Your task to perform on an android device: Open calendar and show me the second week of next month Image 0: 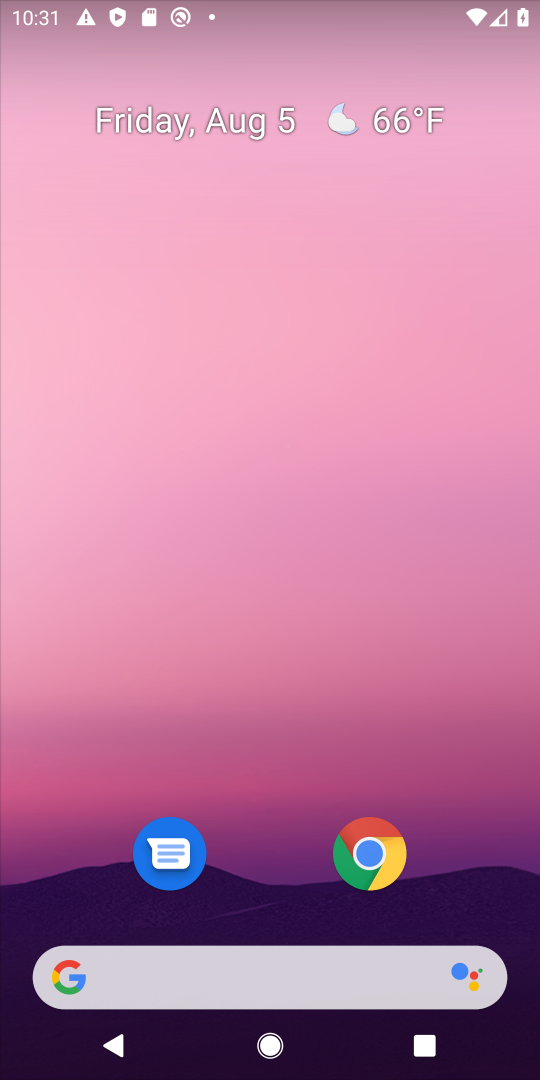
Step 0: drag from (249, 901) to (163, 202)
Your task to perform on an android device: Open calendar and show me the second week of next month Image 1: 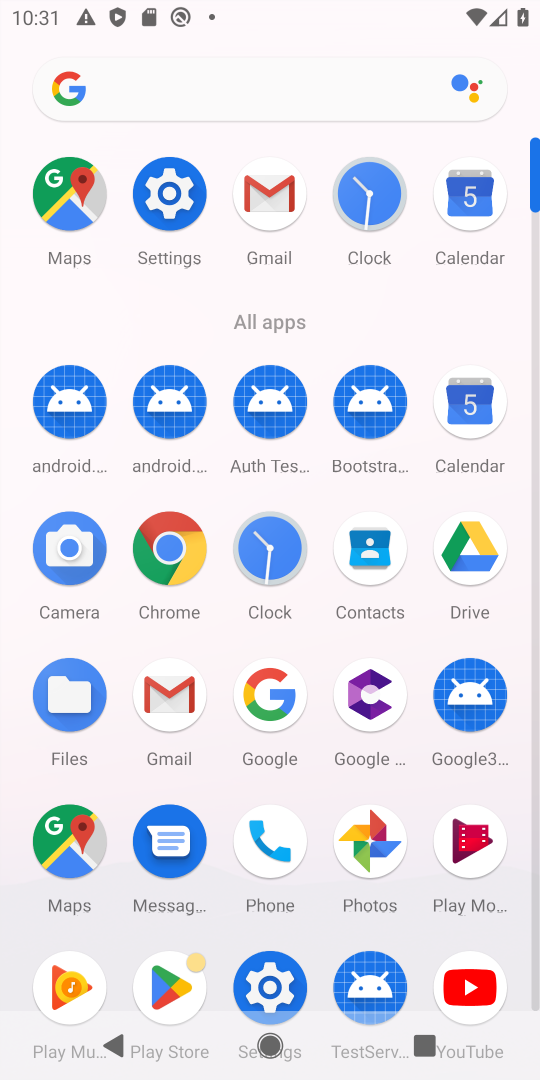
Step 1: click (475, 406)
Your task to perform on an android device: Open calendar and show me the second week of next month Image 2: 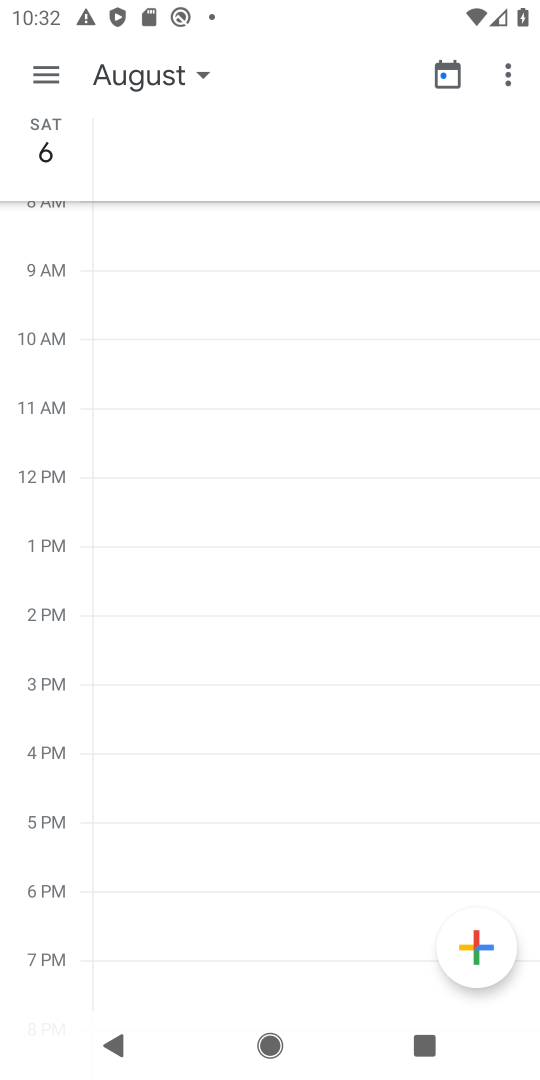
Step 2: click (67, 78)
Your task to perform on an android device: Open calendar and show me the second week of next month Image 3: 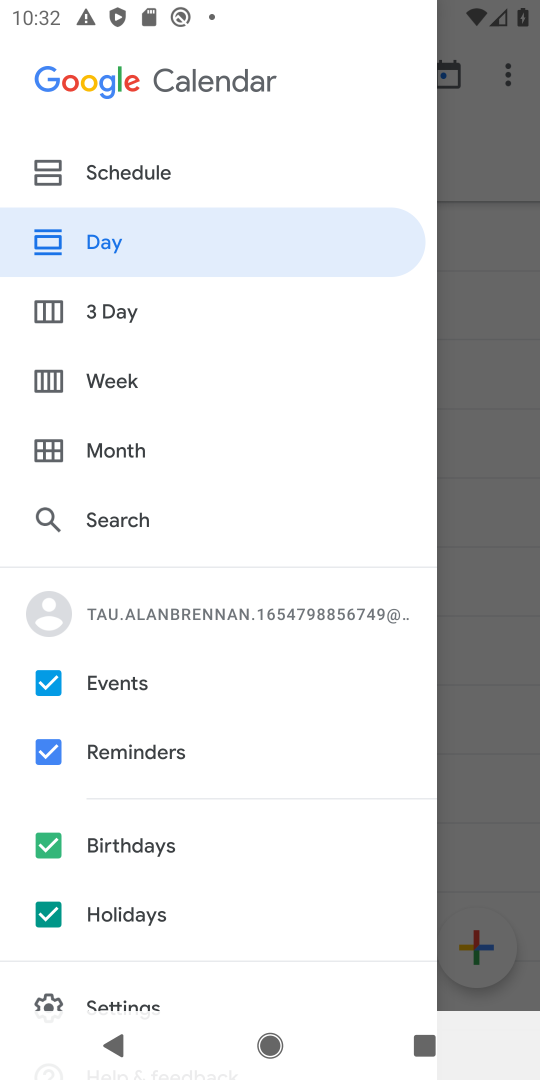
Step 3: click (184, 172)
Your task to perform on an android device: Open calendar and show me the second week of next month Image 4: 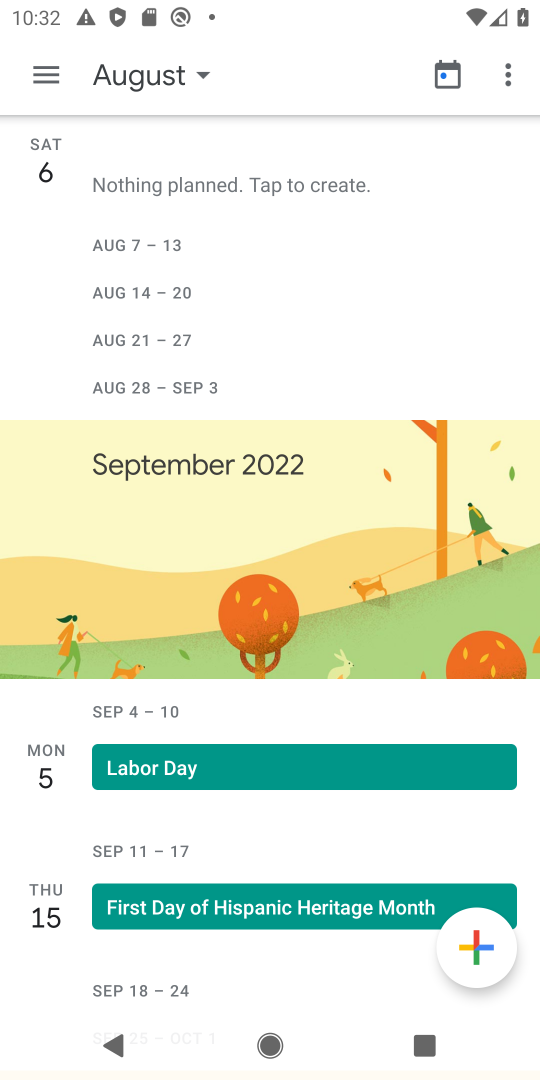
Step 4: click (204, 68)
Your task to perform on an android device: Open calendar and show me the second week of next month Image 5: 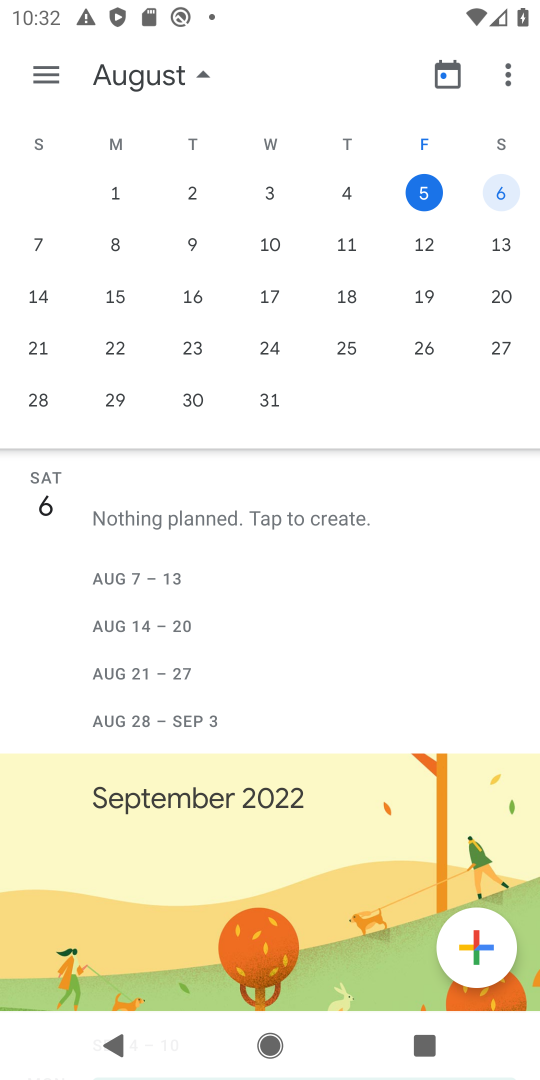
Step 5: drag from (513, 200) to (51, 191)
Your task to perform on an android device: Open calendar and show me the second week of next month Image 6: 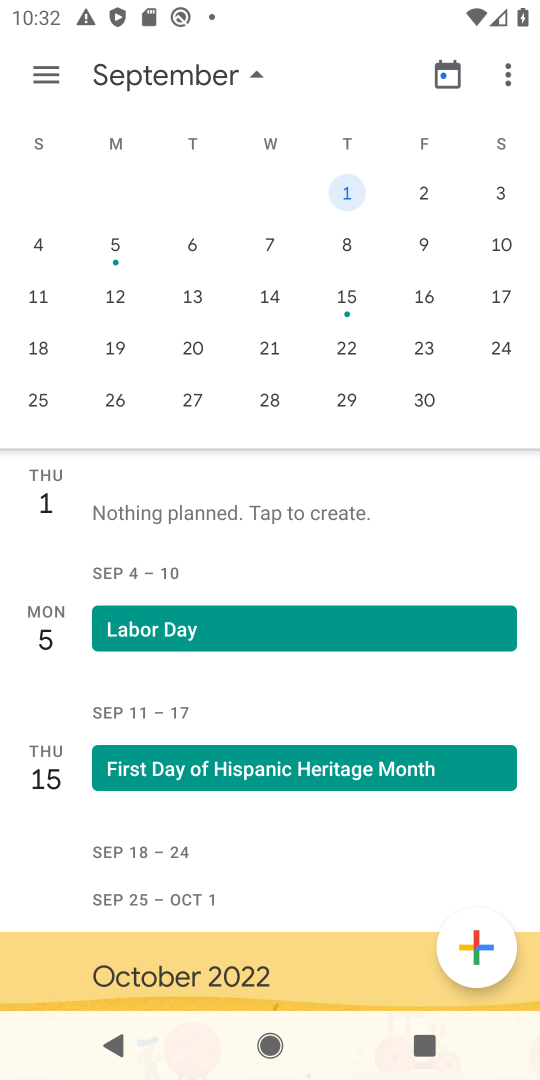
Step 6: click (52, 252)
Your task to perform on an android device: Open calendar and show me the second week of next month Image 7: 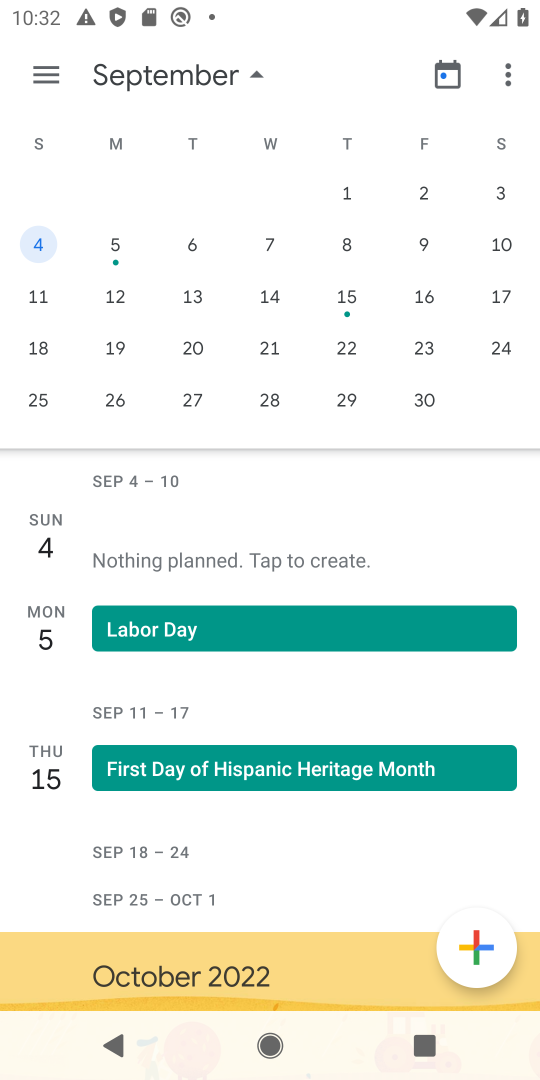
Step 7: task complete